Your task to perform on an android device: What's on my calendar tomorrow? Image 0: 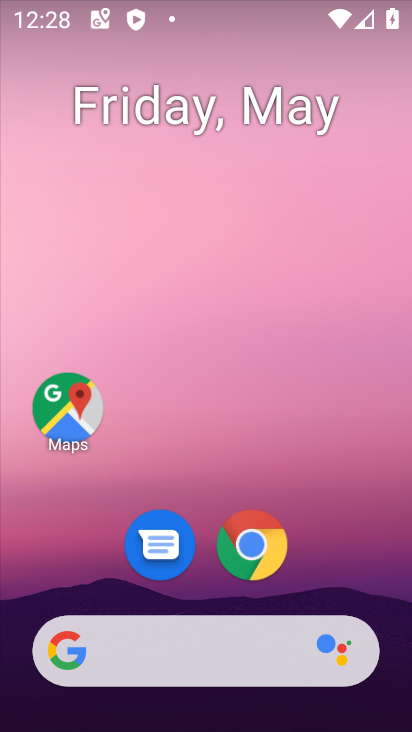
Step 0: drag from (343, 518) to (331, 116)
Your task to perform on an android device: What's on my calendar tomorrow? Image 1: 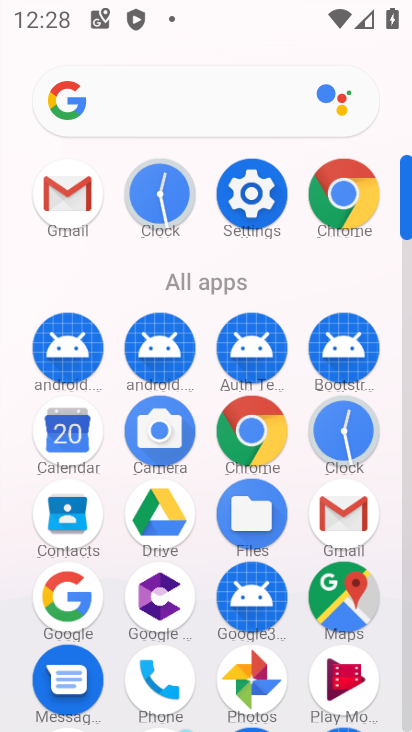
Step 1: click (56, 458)
Your task to perform on an android device: What's on my calendar tomorrow? Image 2: 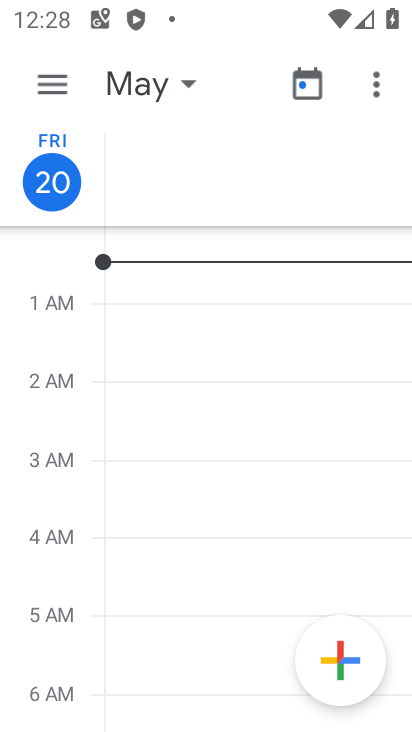
Step 2: drag from (166, 493) to (175, 222)
Your task to perform on an android device: What's on my calendar tomorrow? Image 3: 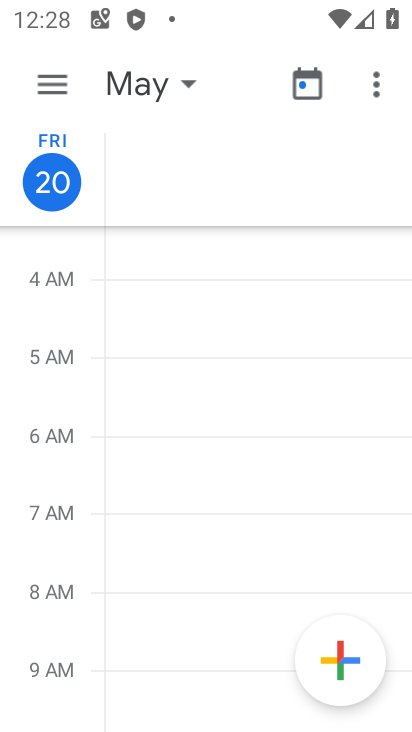
Step 3: drag from (144, 575) to (210, 223)
Your task to perform on an android device: What's on my calendar tomorrow? Image 4: 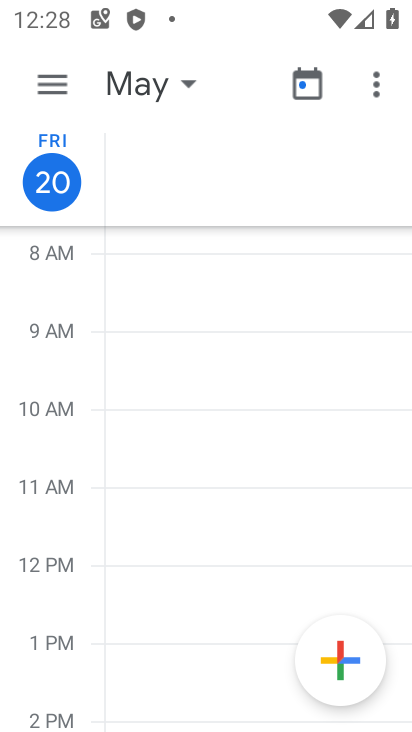
Step 4: click (162, 71)
Your task to perform on an android device: What's on my calendar tomorrow? Image 5: 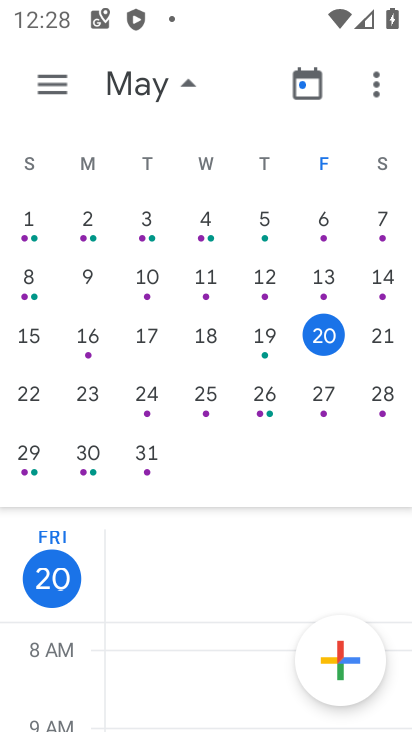
Step 5: click (387, 345)
Your task to perform on an android device: What's on my calendar tomorrow? Image 6: 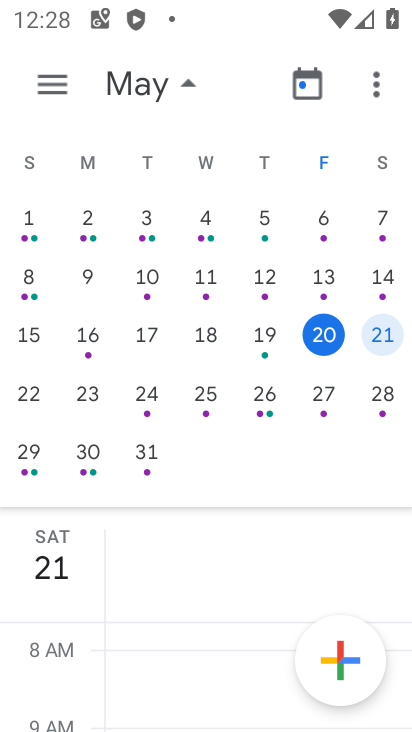
Step 6: task complete